Your task to perform on an android device: Search for vegetarian restaurants on Maps Image 0: 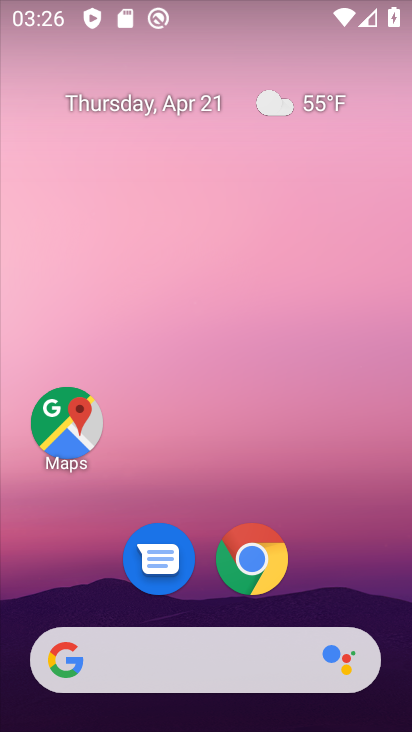
Step 0: click (82, 433)
Your task to perform on an android device: Search for vegetarian restaurants on Maps Image 1: 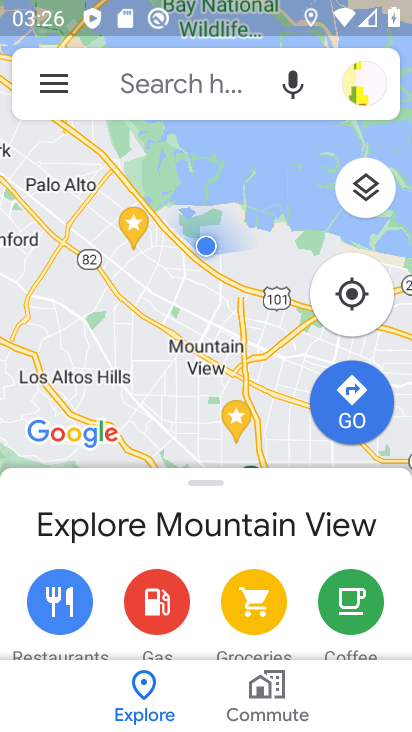
Step 1: click (169, 80)
Your task to perform on an android device: Search for vegetarian restaurants on Maps Image 2: 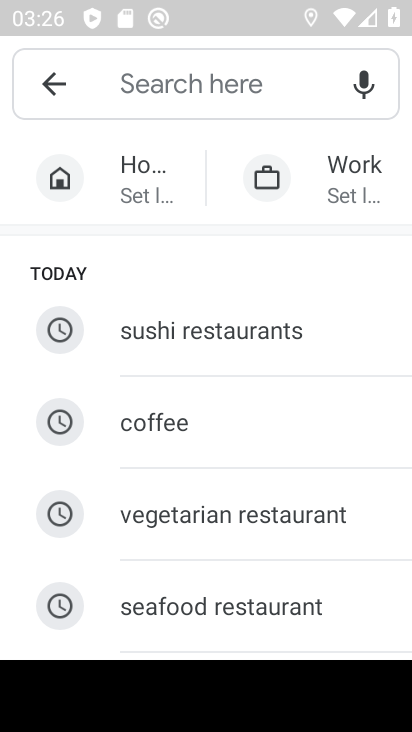
Step 2: click (252, 500)
Your task to perform on an android device: Search for vegetarian restaurants on Maps Image 3: 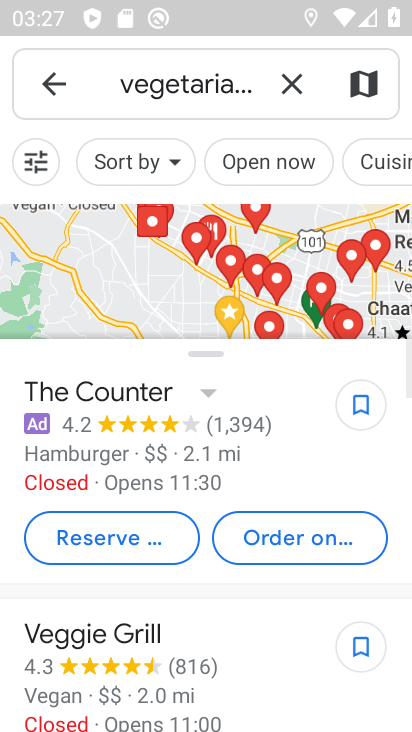
Step 3: task complete